Your task to perform on an android device: Open Google Maps and go to "Timeline" Image 0: 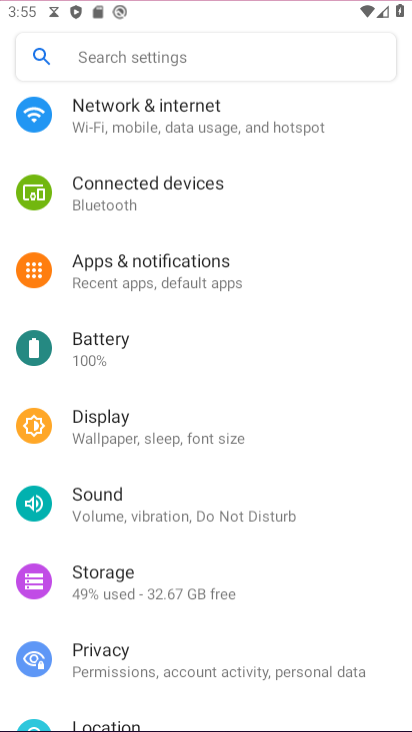
Step 0: click (272, 352)
Your task to perform on an android device: Open Google Maps and go to "Timeline" Image 1: 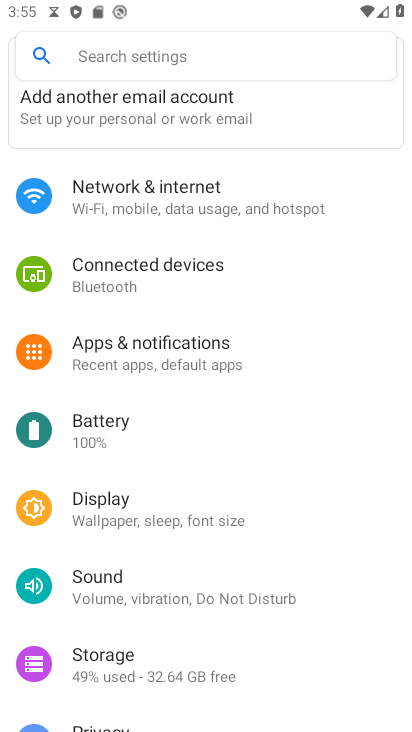
Step 1: press home button
Your task to perform on an android device: Open Google Maps and go to "Timeline" Image 2: 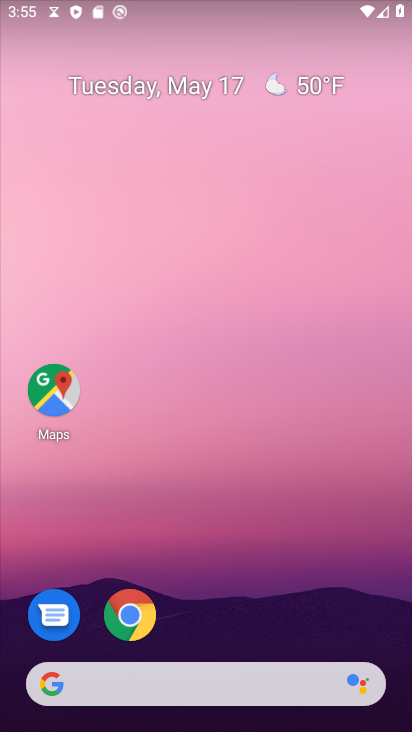
Step 2: drag from (240, 624) to (228, 211)
Your task to perform on an android device: Open Google Maps and go to "Timeline" Image 3: 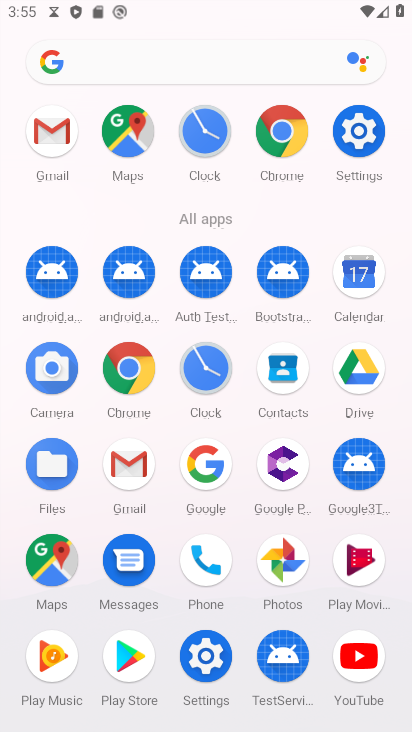
Step 3: click (125, 140)
Your task to perform on an android device: Open Google Maps and go to "Timeline" Image 4: 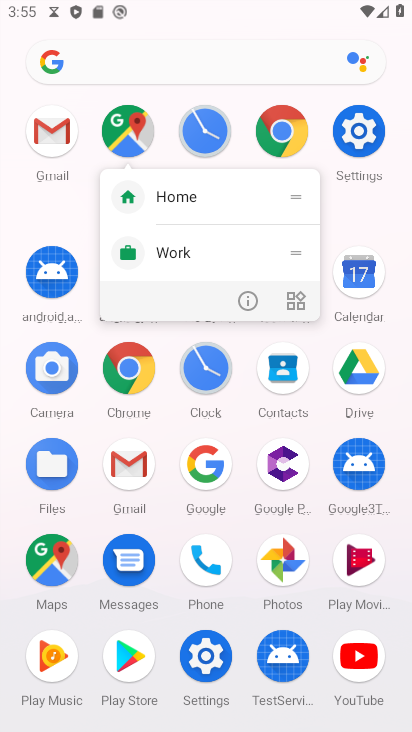
Step 4: click (125, 140)
Your task to perform on an android device: Open Google Maps and go to "Timeline" Image 5: 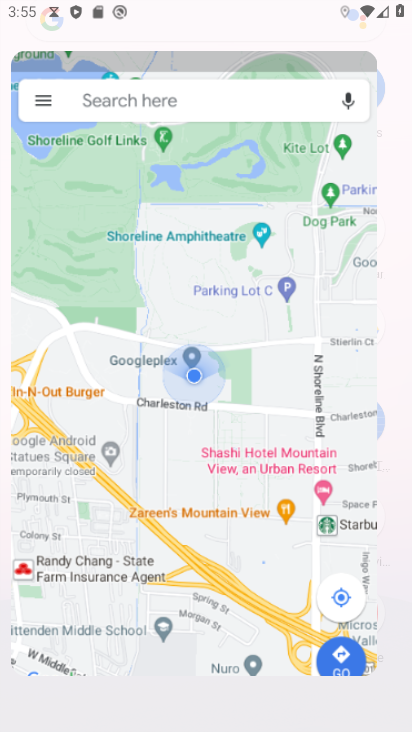
Step 5: click (125, 140)
Your task to perform on an android device: Open Google Maps and go to "Timeline" Image 6: 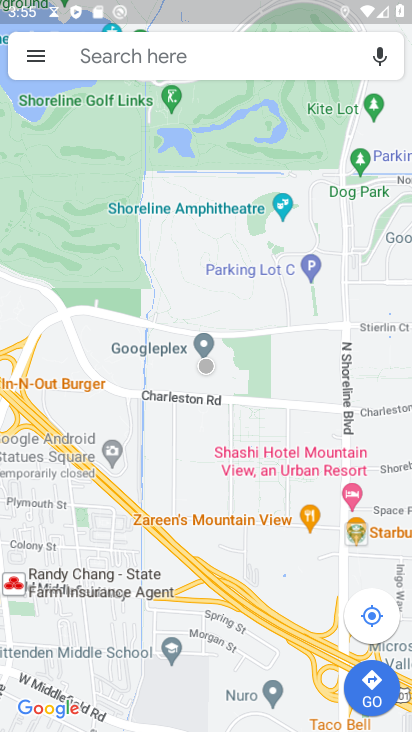
Step 6: click (125, 140)
Your task to perform on an android device: Open Google Maps and go to "Timeline" Image 7: 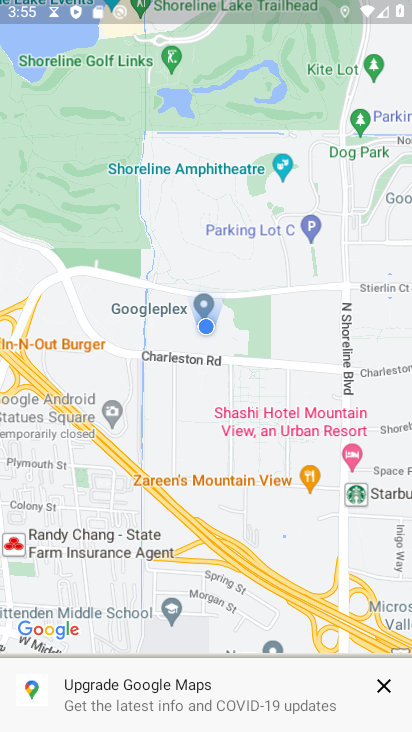
Step 7: click (37, 56)
Your task to perform on an android device: Open Google Maps and go to "Timeline" Image 8: 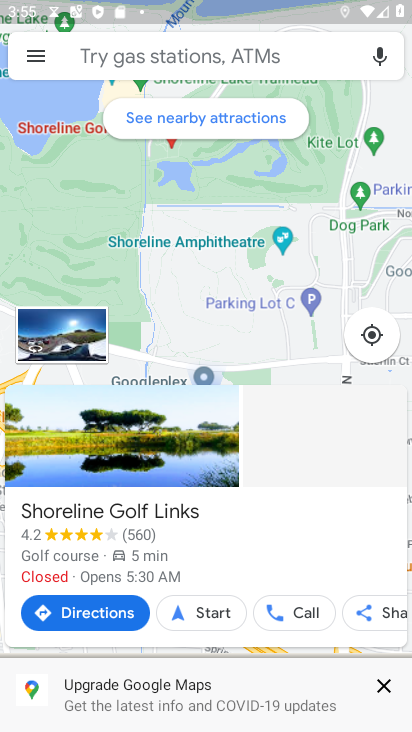
Step 8: click (32, 56)
Your task to perform on an android device: Open Google Maps and go to "Timeline" Image 9: 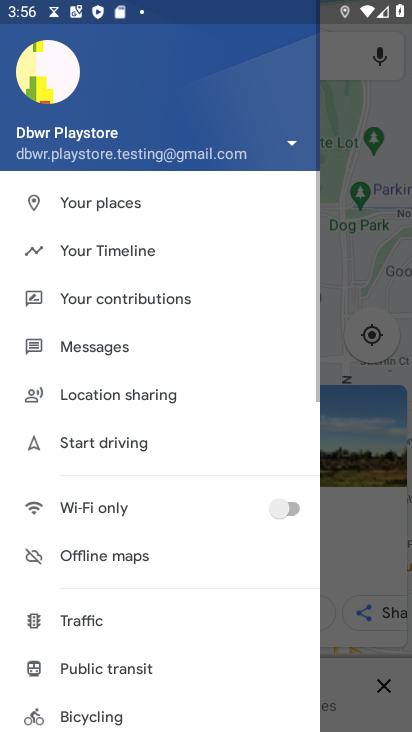
Step 9: click (116, 254)
Your task to perform on an android device: Open Google Maps and go to "Timeline" Image 10: 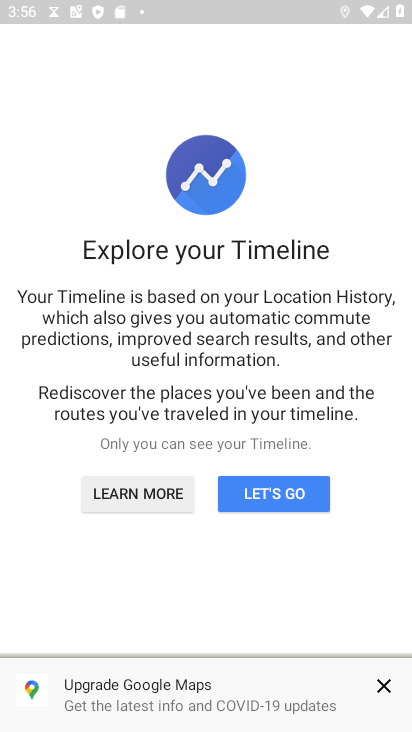
Step 10: click (274, 495)
Your task to perform on an android device: Open Google Maps and go to "Timeline" Image 11: 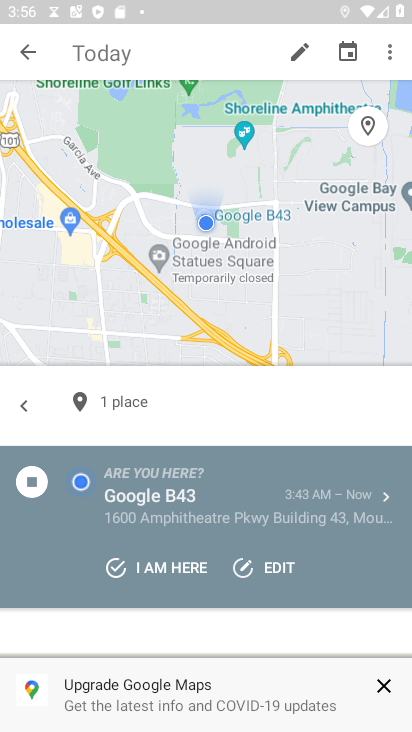
Step 11: task complete